Your task to perform on an android device: What's the weather today? Image 0: 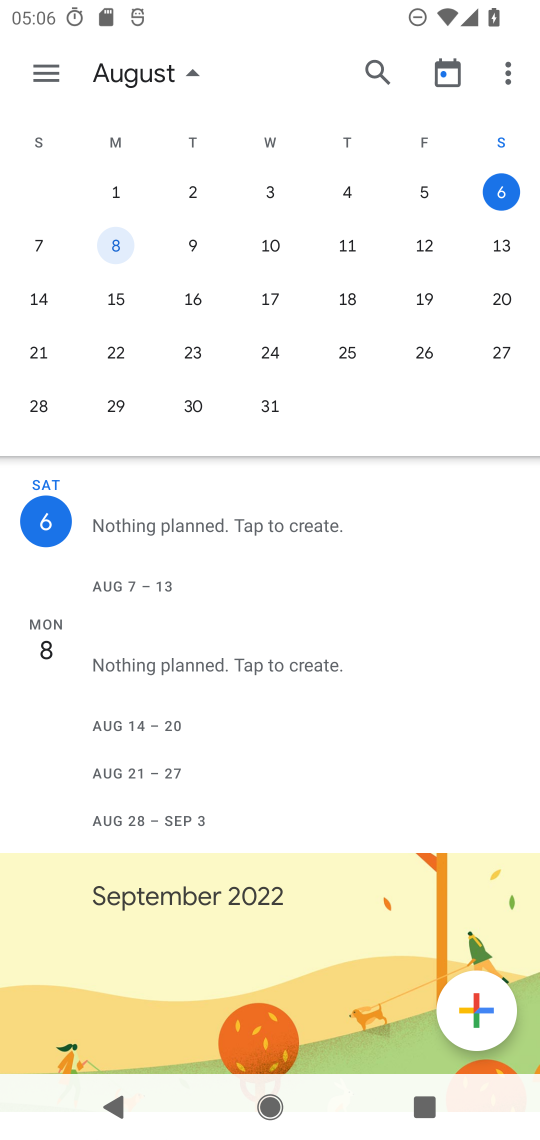
Step 0: press home button
Your task to perform on an android device: What's the weather today? Image 1: 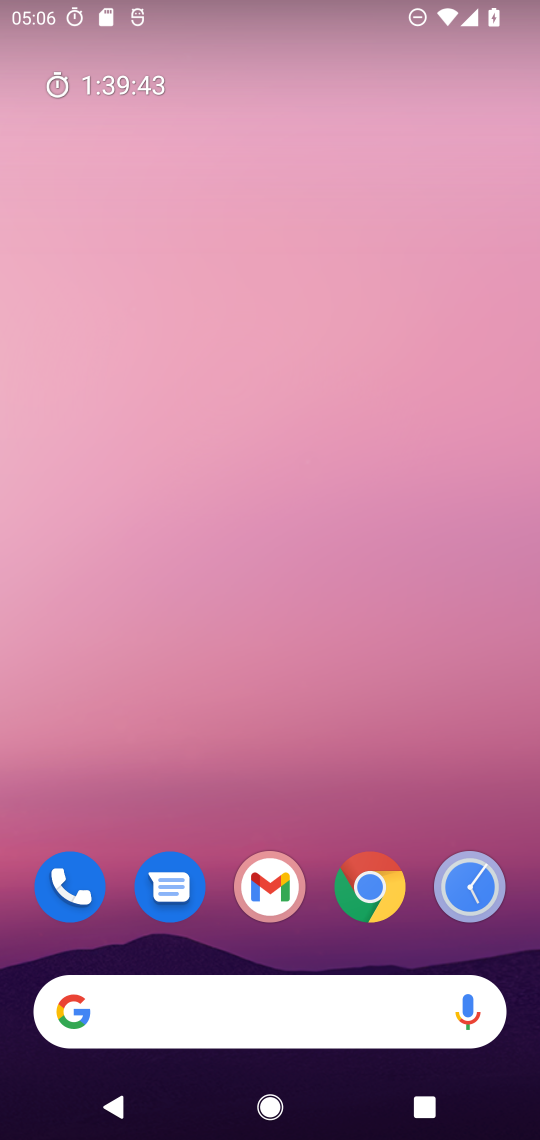
Step 1: click (277, 1020)
Your task to perform on an android device: What's the weather today? Image 2: 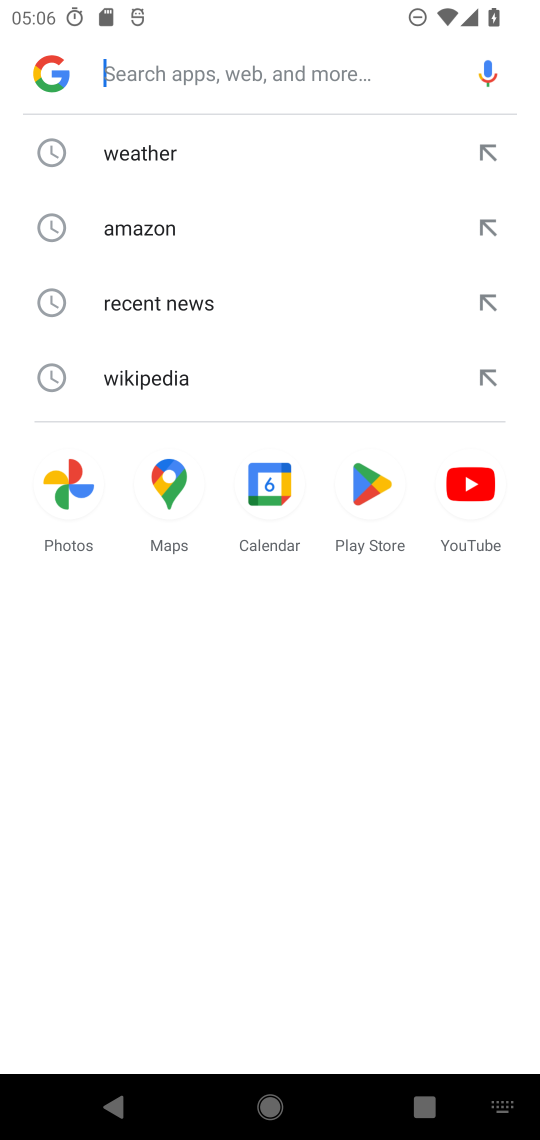
Step 2: click (157, 151)
Your task to perform on an android device: What's the weather today? Image 3: 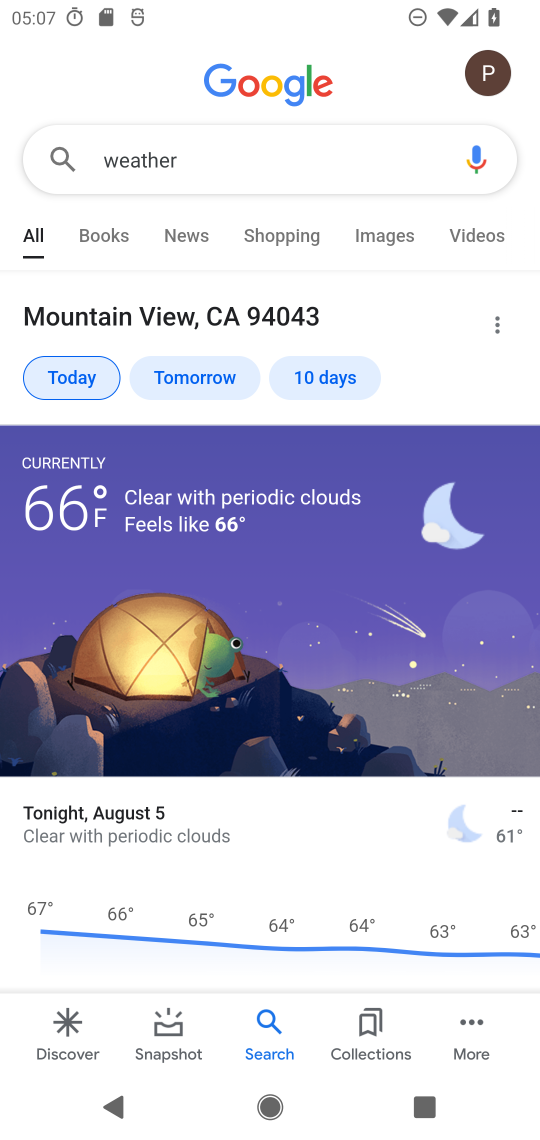
Step 3: task complete